Your task to perform on an android device: Open Wikipedia Image 0: 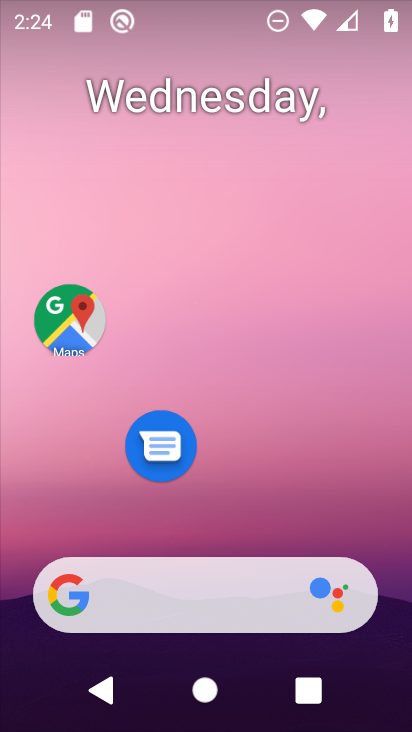
Step 0: drag from (351, 542) to (296, 244)
Your task to perform on an android device: Open Wikipedia Image 1: 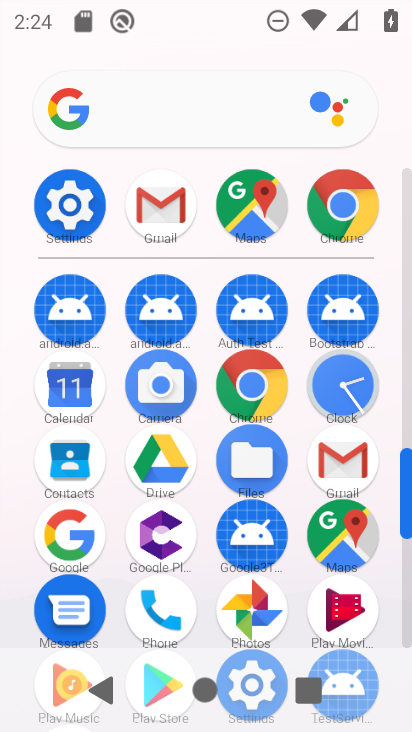
Step 1: click (341, 231)
Your task to perform on an android device: Open Wikipedia Image 2: 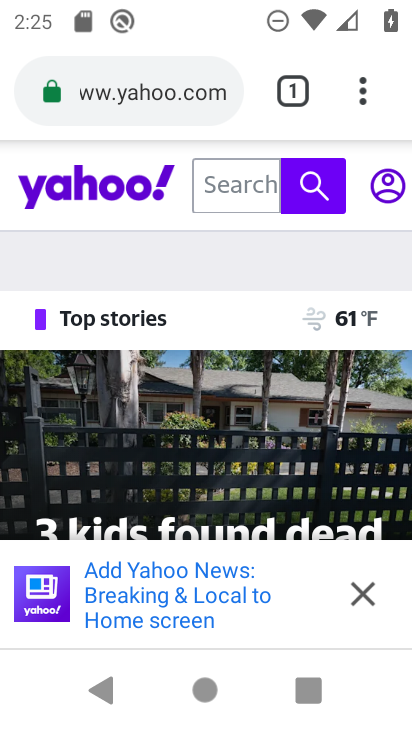
Step 2: click (188, 90)
Your task to perform on an android device: Open Wikipedia Image 3: 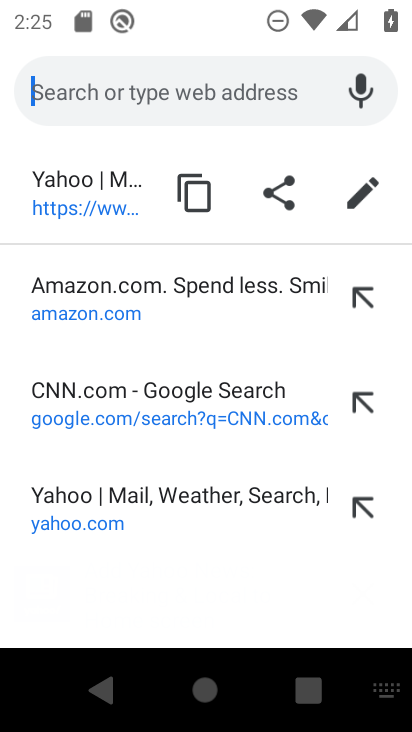
Step 3: type "wikipedia.com"
Your task to perform on an android device: Open Wikipedia Image 4: 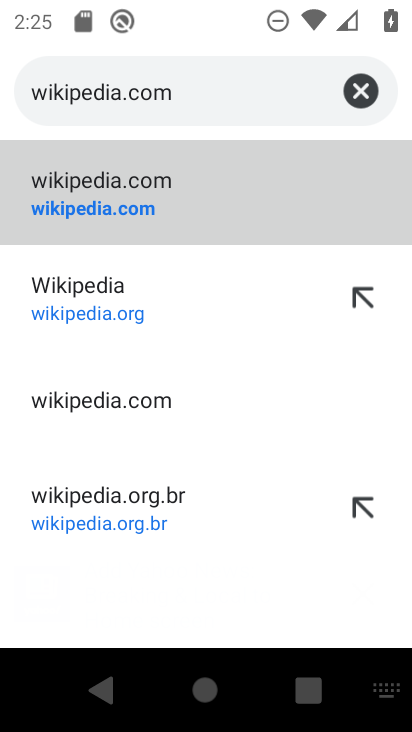
Step 4: click (178, 211)
Your task to perform on an android device: Open Wikipedia Image 5: 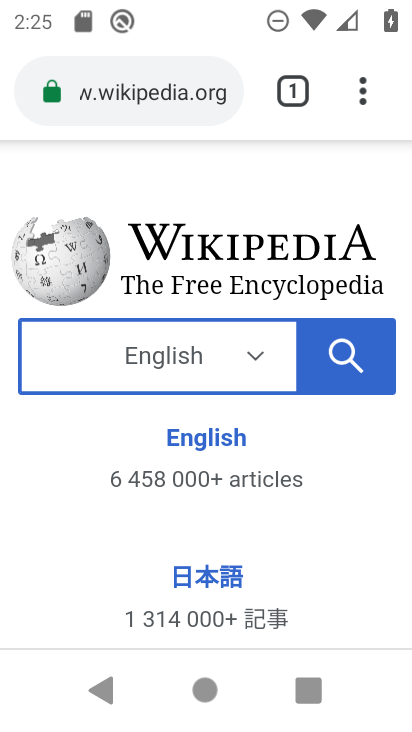
Step 5: task complete